Your task to perform on an android device: turn off wifi Image 0: 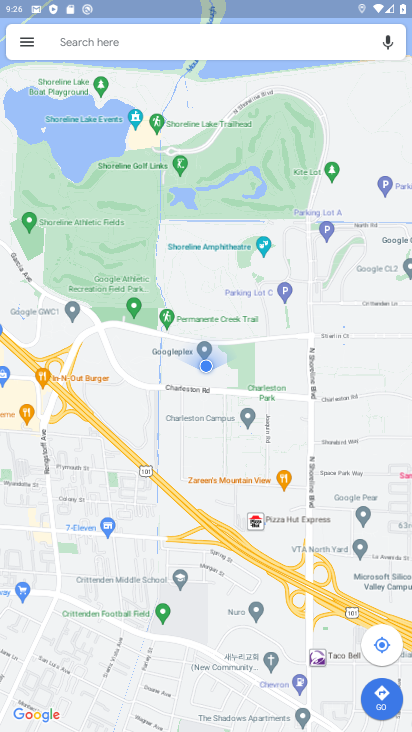
Step 0: press home button
Your task to perform on an android device: turn off wifi Image 1: 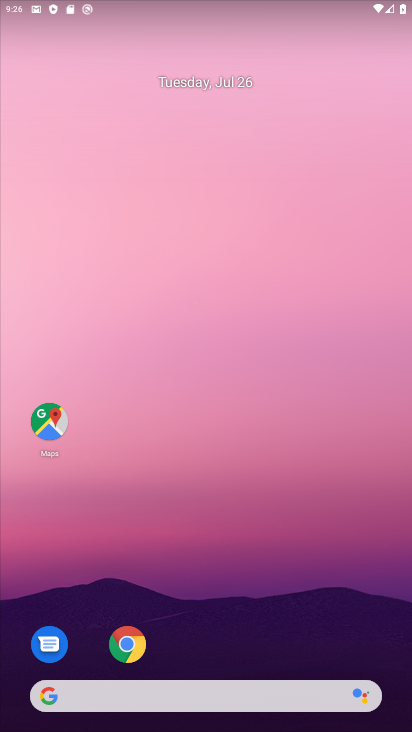
Step 1: drag from (226, 502) to (217, 62)
Your task to perform on an android device: turn off wifi Image 2: 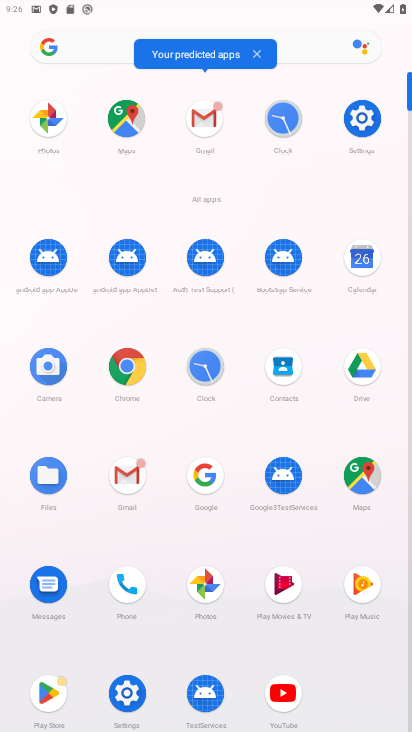
Step 2: click (351, 117)
Your task to perform on an android device: turn off wifi Image 3: 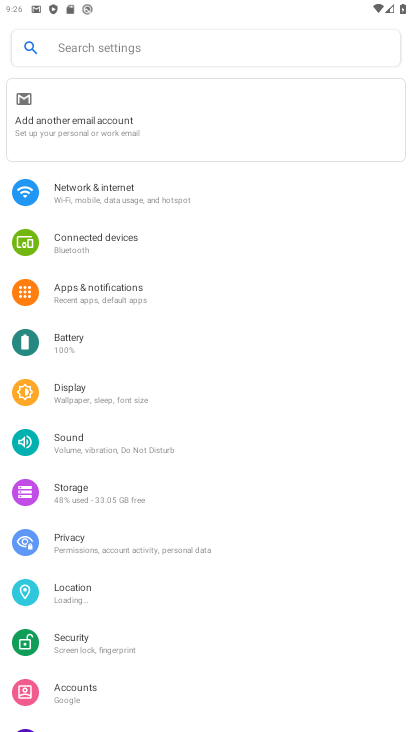
Step 3: click (85, 194)
Your task to perform on an android device: turn off wifi Image 4: 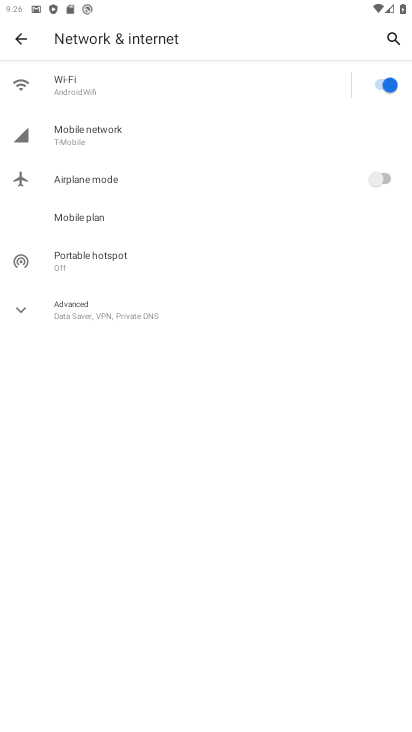
Step 4: click (383, 83)
Your task to perform on an android device: turn off wifi Image 5: 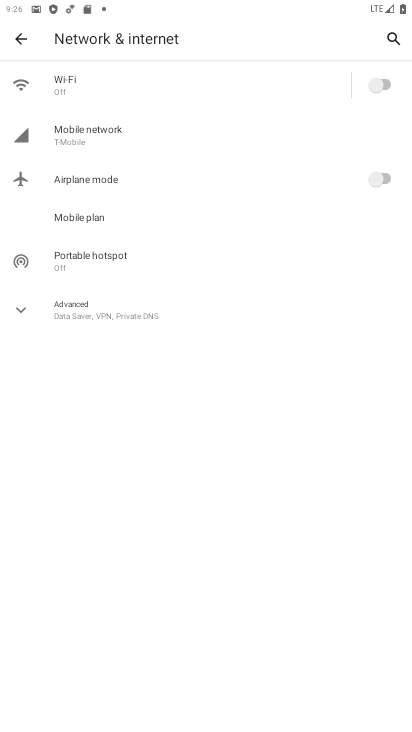
Step 5: task complete